Your task to perform on an android device: open wifi settings Image 0: 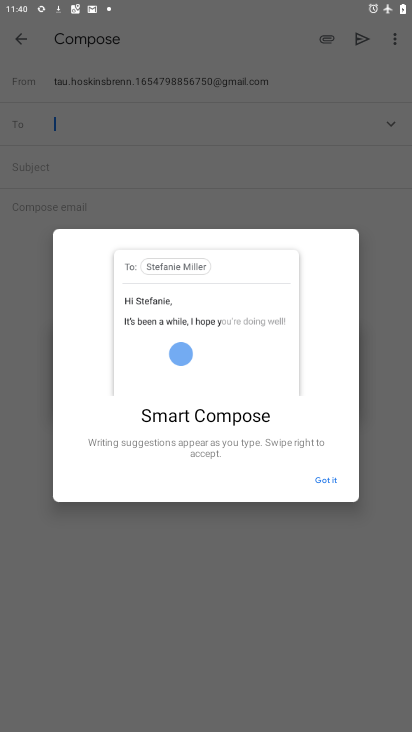
Step 0: press home button
Your task to perform on an android device: open wifi settings Image 1: 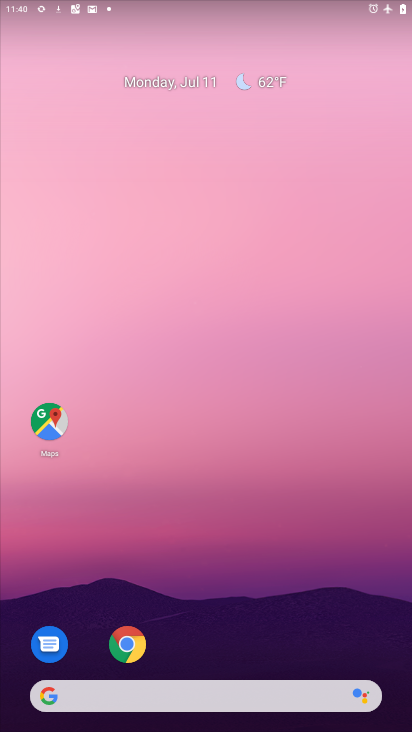
Step 1: drag from (257, 649) to (304, 58)
Your task to perform on an android device: open wifi settings Image 2: 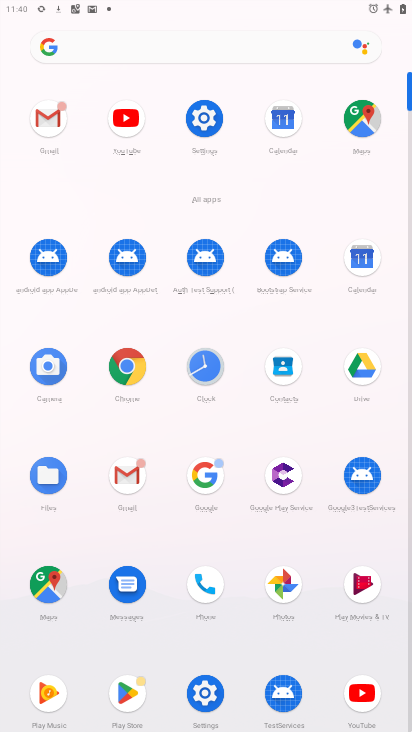
Step 2: click (218, 112)
Your task to perform on an android device: open wifi settings Image 3: 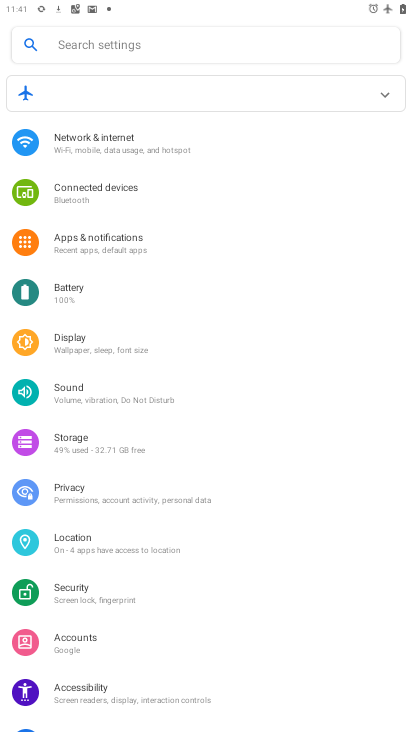
Step 3: click (150, 149)
Your task to perform on an android device: open wifi settings Image 4: 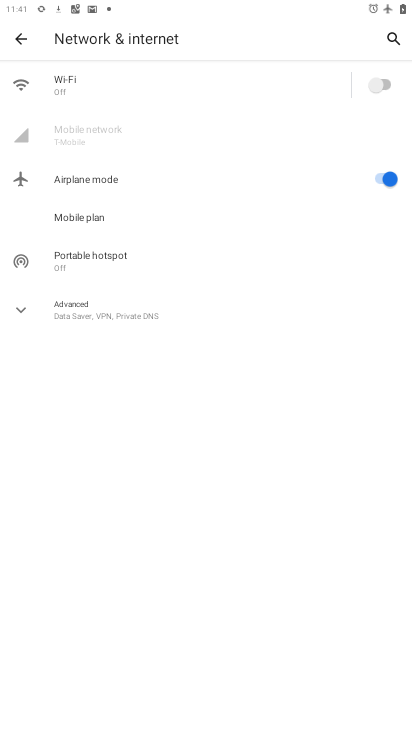
Step 4: click (113, 89)
Your task to perform on an android device: open wifi settings Image 5: 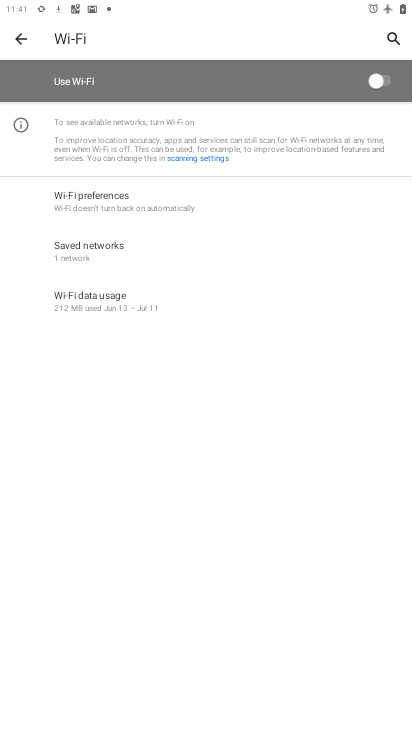
Step 5: task complete